Your task to perform on an android device: Open battery settings Image 0: 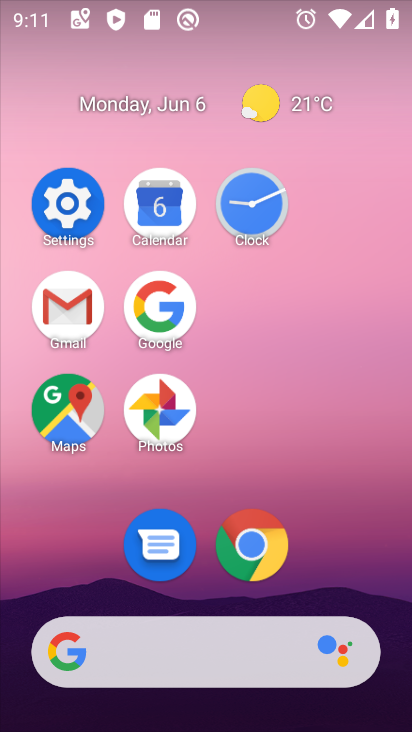
Step 0: click (74, 217)
Your task to perform on an android device: Open battery settings Image 1: 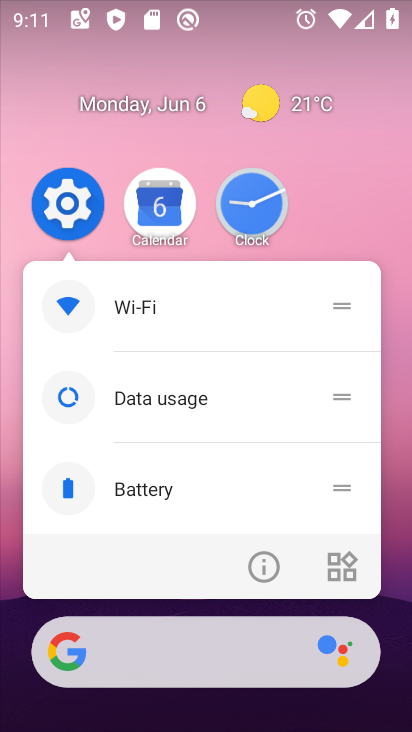
Step 1: click (74, 217)
Your task to perform on an android device: Open battery settings Image 2: 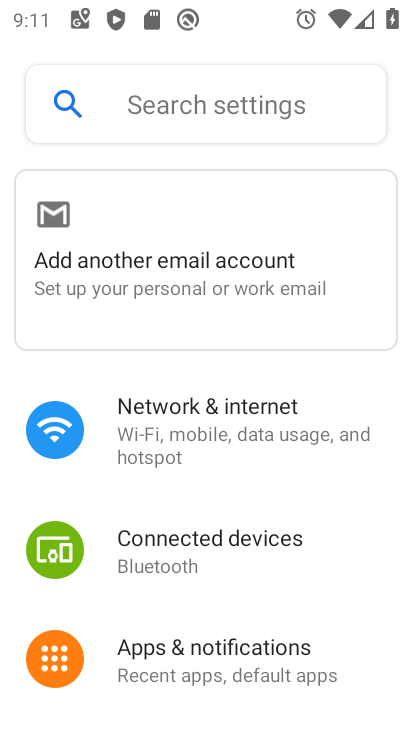
Step 2: drag from (243, 614) to (211, 252)
Your task to perform on an android device: Open battery settings Image 3: 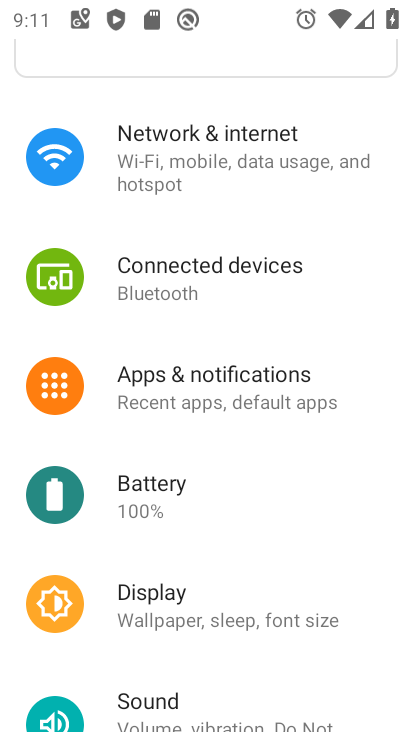
Step 3: click (193, 504)
Your task to perform on an android device: Open battery settings Image 4: 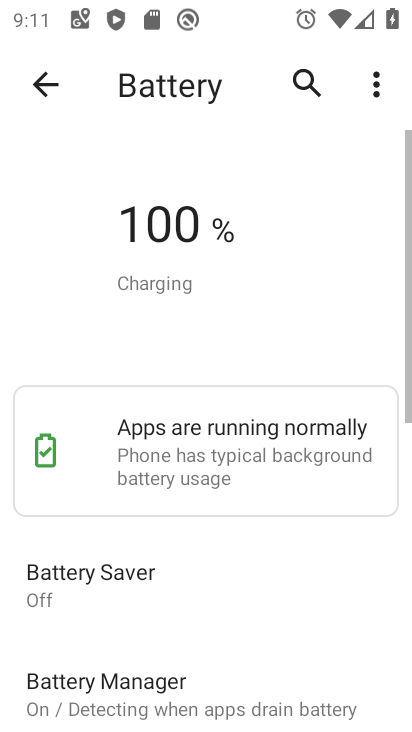
Step 4: task complete